Your task to perform on an android device: open a new tab in the chrome app Image 0: 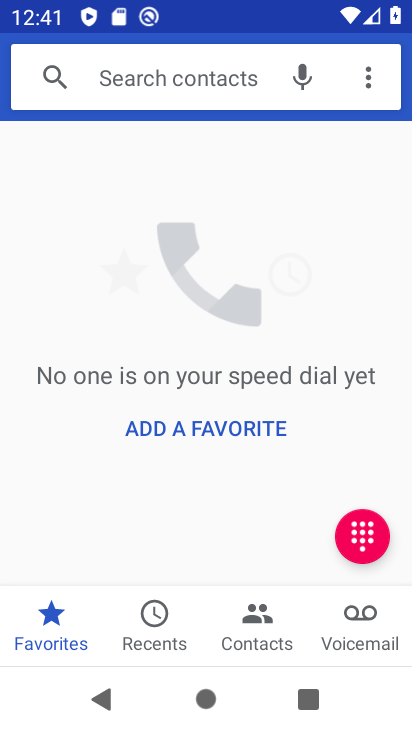
Step 0: press home button
Your task to perform on an android device: open a new tab in the chrome app Image 1: 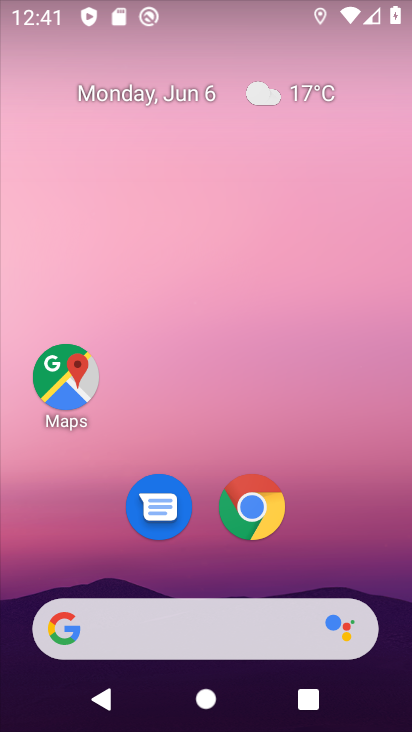
Step 1: click (256, 520)
Your task to perform on an android device: open a new tab in the chrome app Image 2: 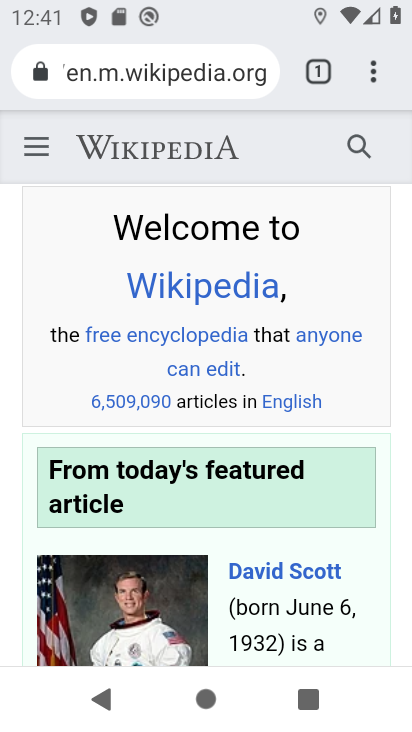
Step 2: click (370, 82)
Your task to perform on an android device: open a new tab in the chrome app Image 3: 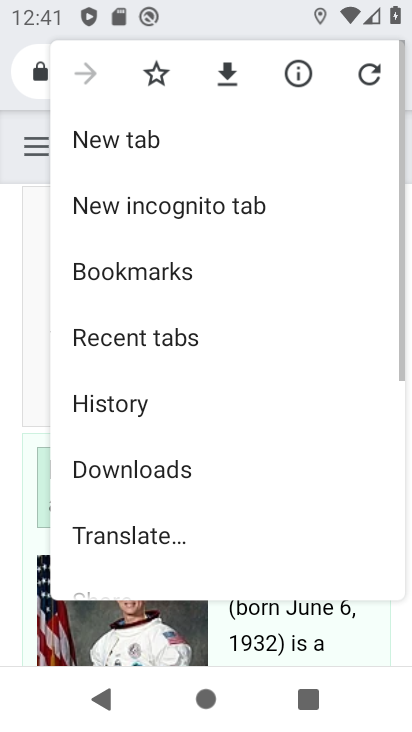
Step 3: click (267, 134)
Your task to perform on an android device: open a new tab in the chrome app Image 4: 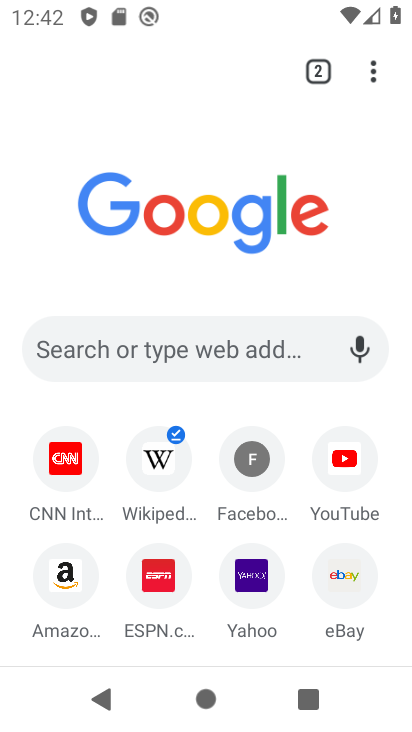
Step 4: task complete